Your task to perform on an android device: delete the emails in spam in the gmail app Image 0: 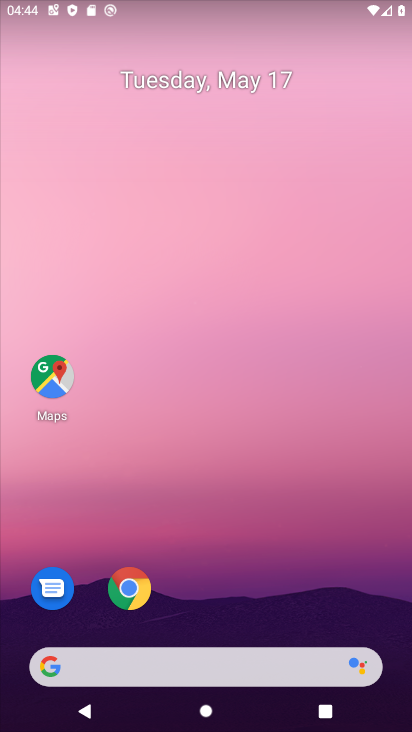
Step 0: drag from (249, 593) to (137, 103)
Your task to perform on an android device: delete the emails in spam in the gmail app Image 1: 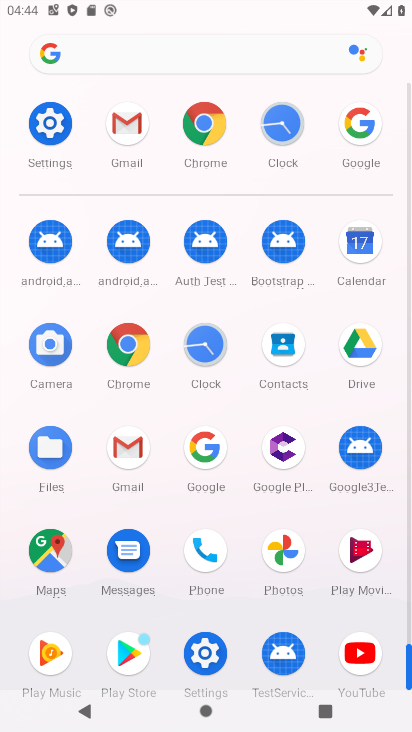
Step 1: click (123, 120)
Your task to perform on an android device: delete the emails in spam in the gmail app Image 2: 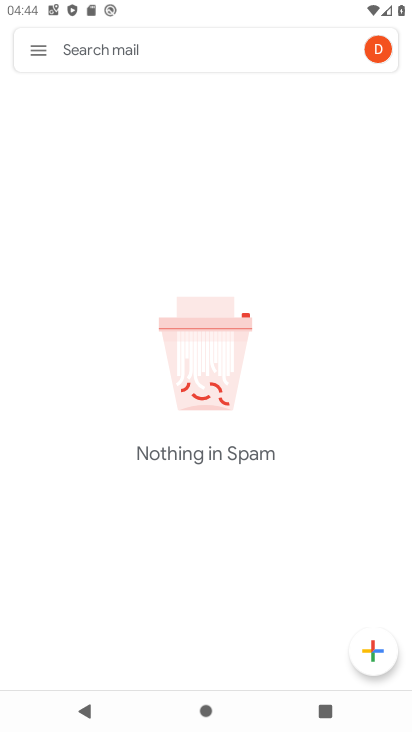
Step 2: click (34, 52)
Your task to perform on an android device: delete the emails in spam in the gmail app Image 3: 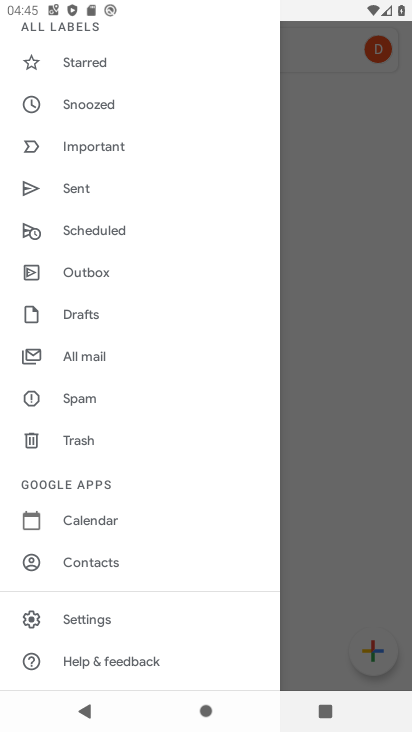
Step 3: click (88, 402)
Your task to perform on an android device: delete the emails in spam in the gmail app Image 4: 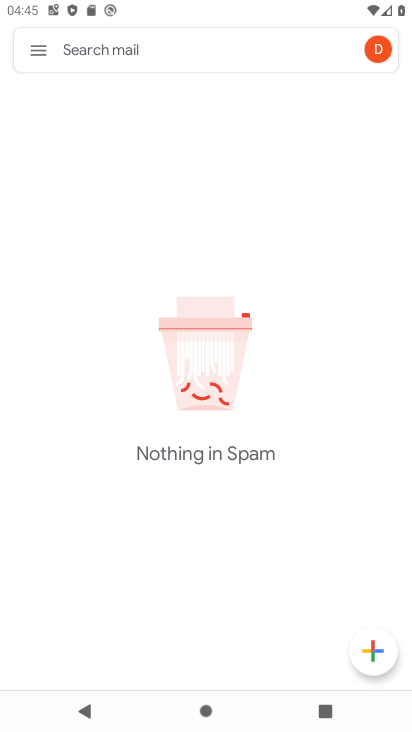
Step 4: task complete